Your task to perform on an android device: When is my next appointment? Image 0: 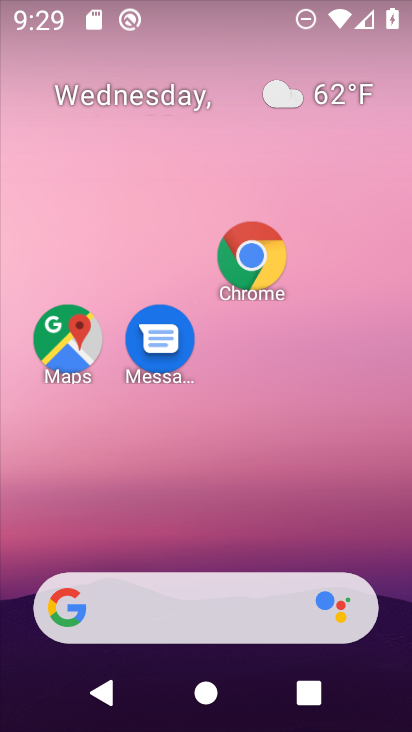
Step 0: drag from (267, 367) to (222, 32)
Your task to perform on an android device: When is my next appointment? Image 1: 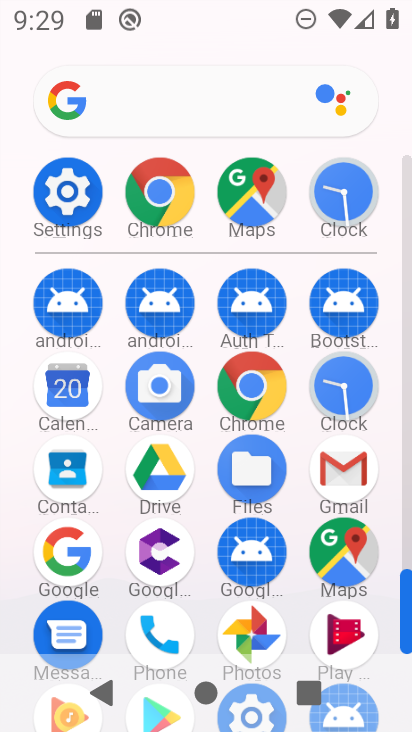
Step 1: click (68, 392)
Your task to perform on an android device: When is my next appointment? Image 2: 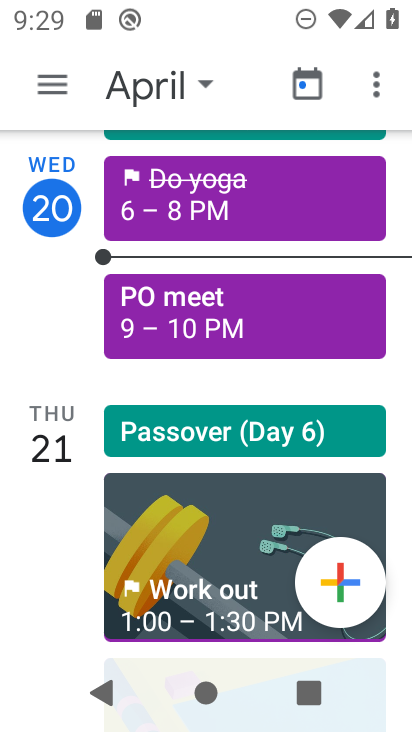
Step 2: click (206, 86)
Your task to perform on an android device: When is my next appointment? Image 3: 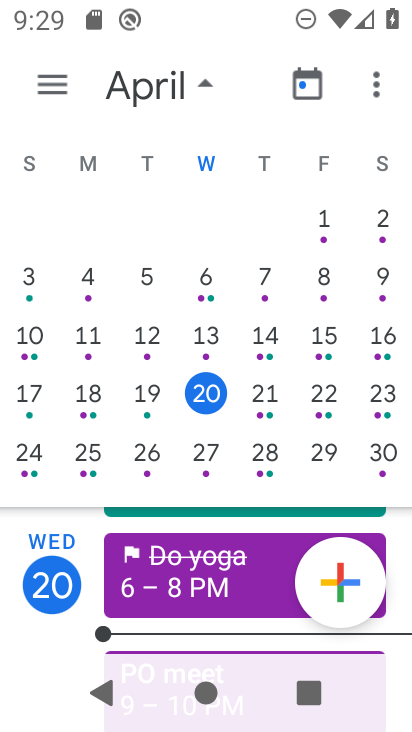
Step 3: click (268, 397)
Your task to perform on an android device: When is my next appointment? Image 4: 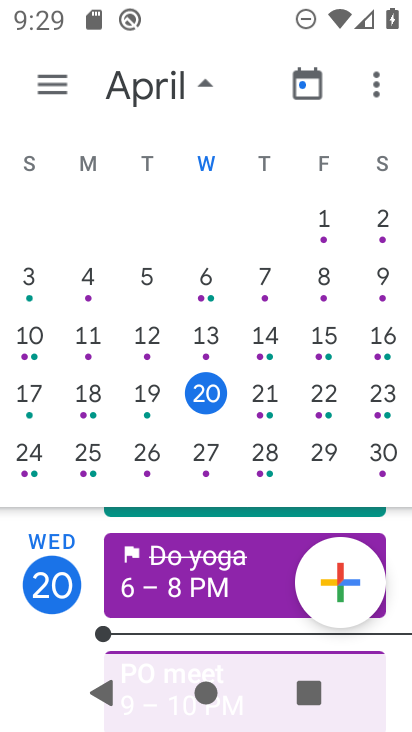
Step 4: click (268, 397)
Your task to perform on an android device: When is my next appointment? Image 5: 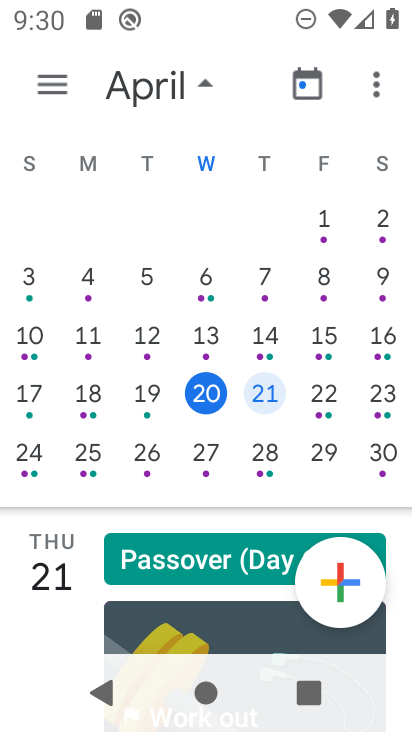
Step 5: task complete